Your task to perform on an android device: Open network settings Image 0: 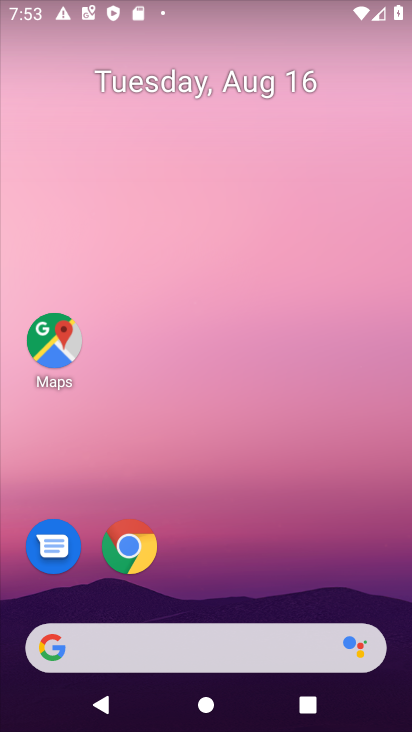
Step 0: drag from (215, 559) to (245, 2)
Your task to perform on an android device: Open network settings Image 1: 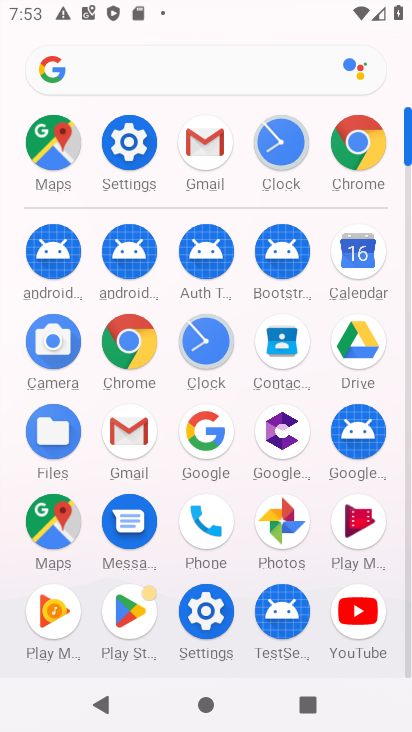
Step 1: click (135, 139)
Your task to perform on an android device: Open network settings Image 2: 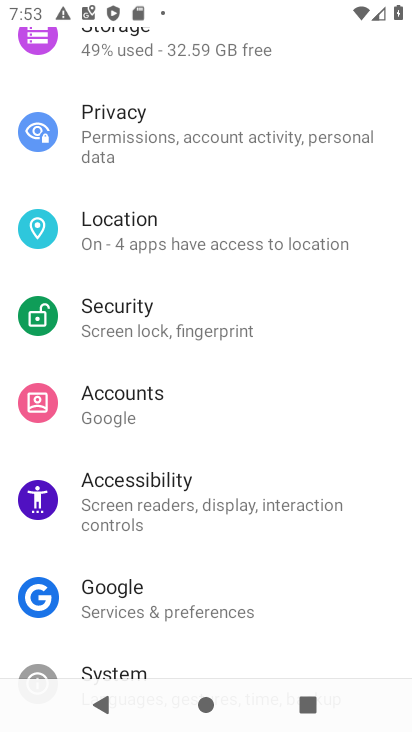
Step 2: drag from (198, 212) to (284, 599)
Your task to perform on an android device: Open network settings Image 3: 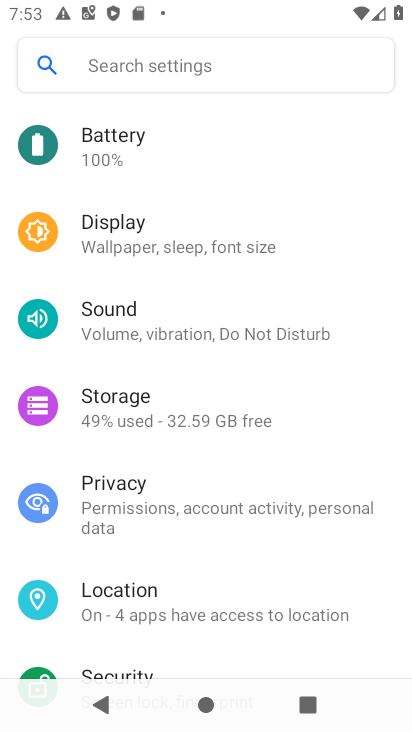
Step 3: drag from (237, 230) to (252, 583)
Your task to perform on an android device: Open network settings Image 4: 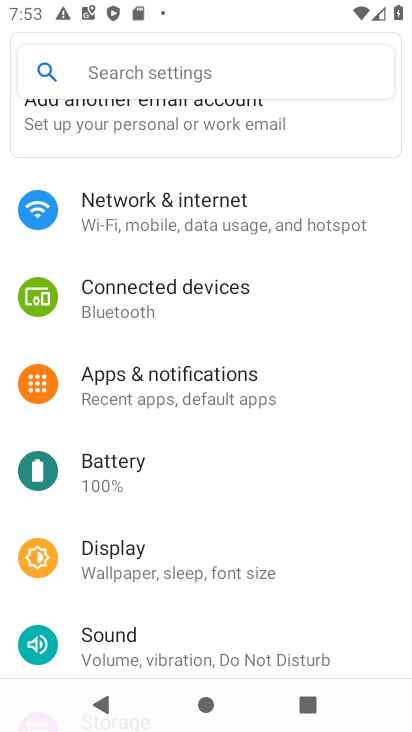
Step 4: click (227, 217)
Your task to perform on an android device: Open network settings Image 5: 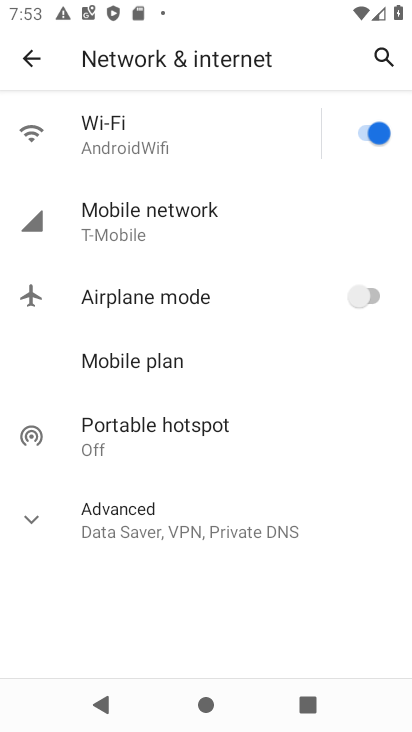
Step 5: task complete